Your task to perform on an android device: turn off picture-in-picture Image 0: 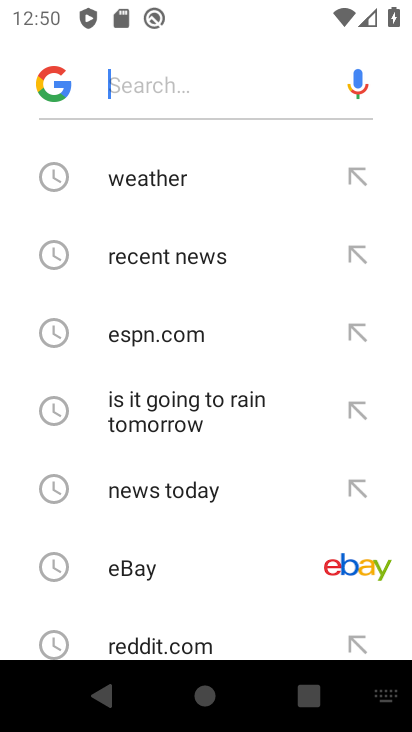
Step 0: press back button
Your task to perform on an android device: turn off picture-in-picture Image 1: 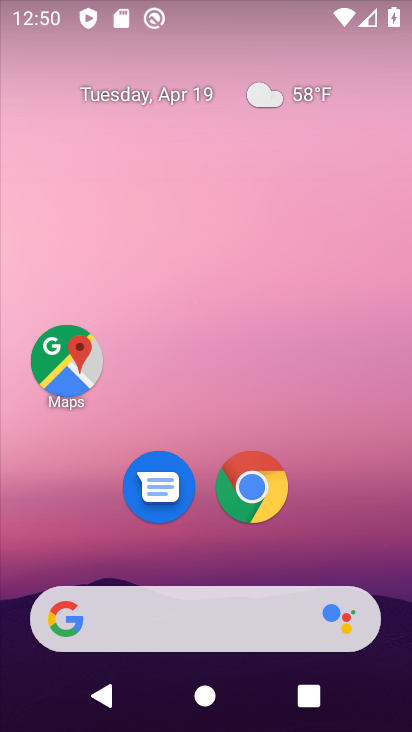
Step 1: drag from (204, 709) to (167, 109)
Your task to perform on an android device: turn off picture-in-picture Image 2: 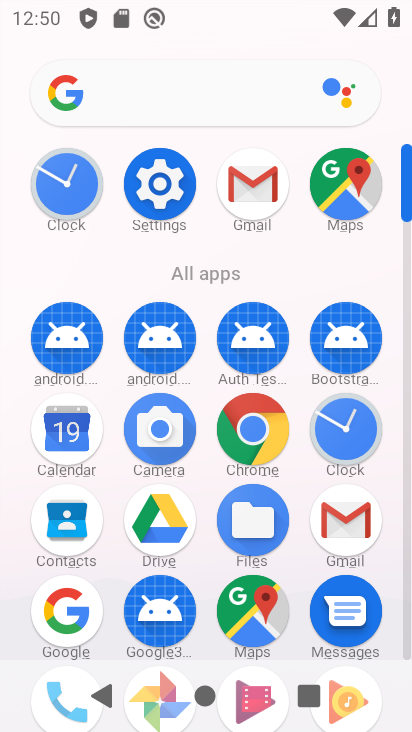
Step 2: click (164, 175)
Your task to perform on an android device: turn off picture-in-picture Image 3: 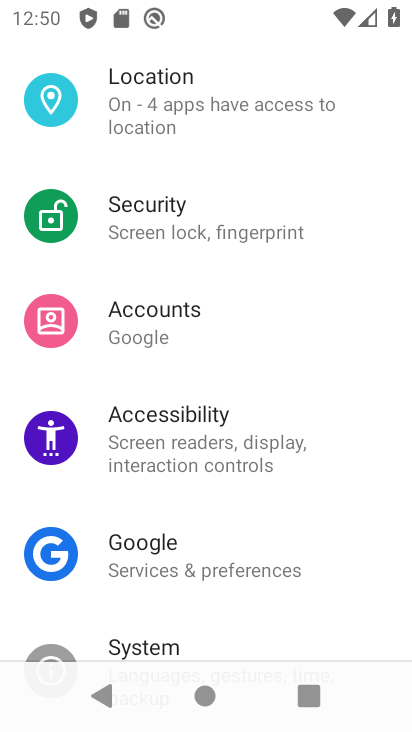
Step 3: drag from (185, 172) to (177, 606)
Your task to perform on an android device: turn off picture-in-picture Image 4: 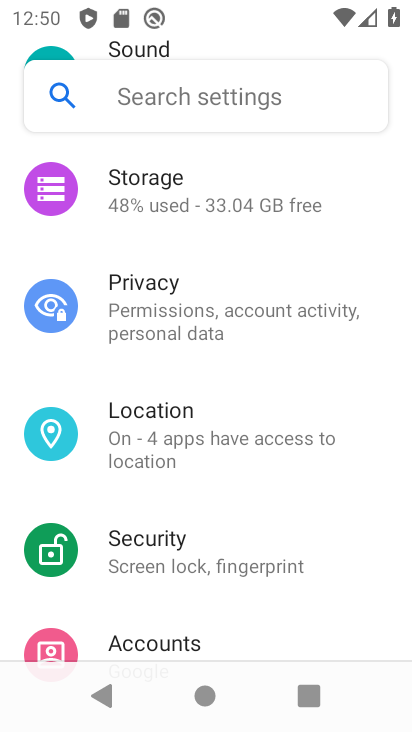
Step 4: drag from (219, 258) to (221, 647)
Your task to perform on an android device: turn off picture-in-picture Image 5: 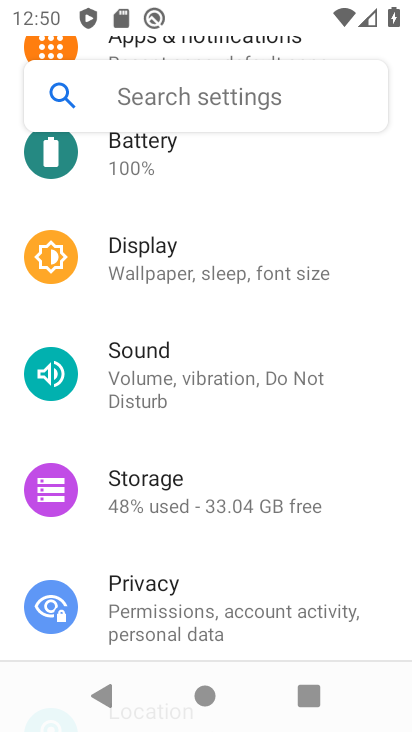
Step 5: drag from (224, 215) to (234, 543)
Your task to perform on an android device: turn off picture-in-picture Image 6: 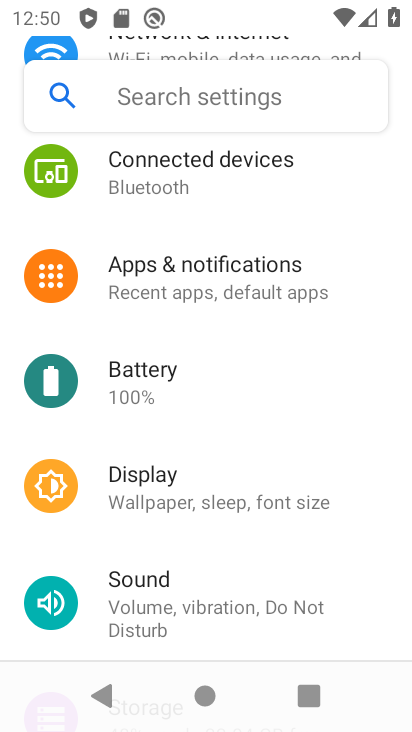
Step 6: click (205, 268)
Your task to perform on an android device: turn off picture-in-picture Image 7: 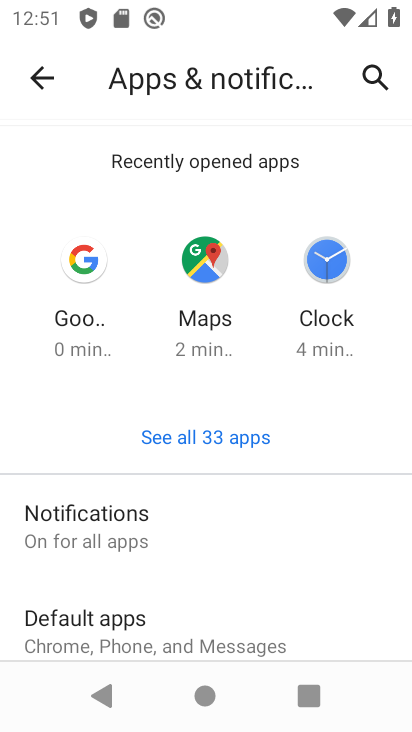
Step 7: drag from (202, 611) to (172, 272)
Your task to perform on an android device: turn off picture-in-picture Image 8: 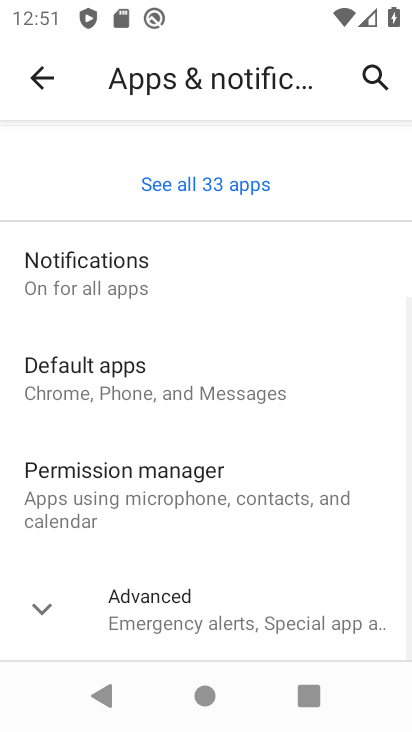
Step 8: click (145, 600)
Your task to perform on an android device: turn off picture-in-picture Image 9: 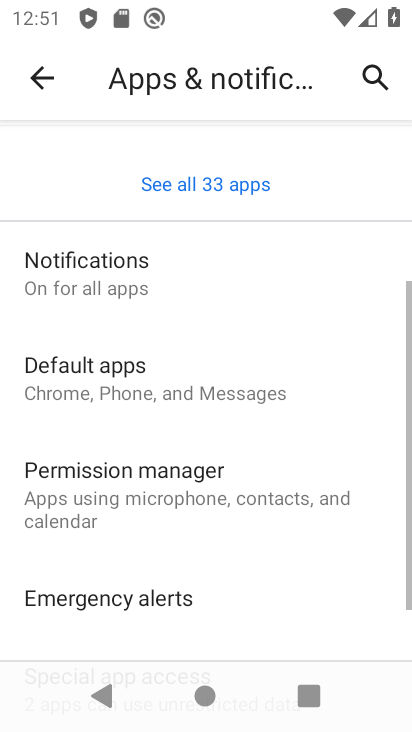
Step 9: drag from (185, 636) to (178, 172)
Your task to perform on an android device: turn off picture-in-picture Image 10: 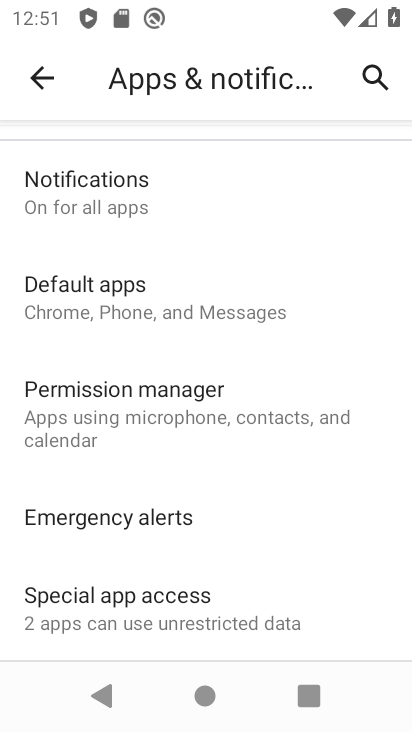
Step 10: click (146, 603)
Your task to perform on an android device: turn off picture-in-picture Image 11: 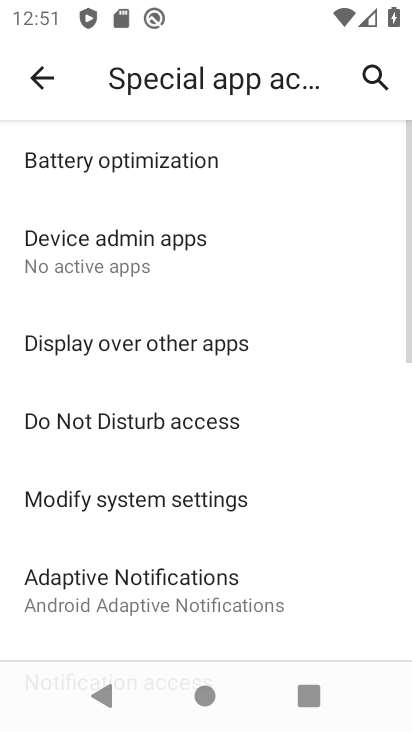
Step 11: drag from (210, 633) to (205, 348)
Your task to perform on an android device: turn off picture-in-picture Image 12: 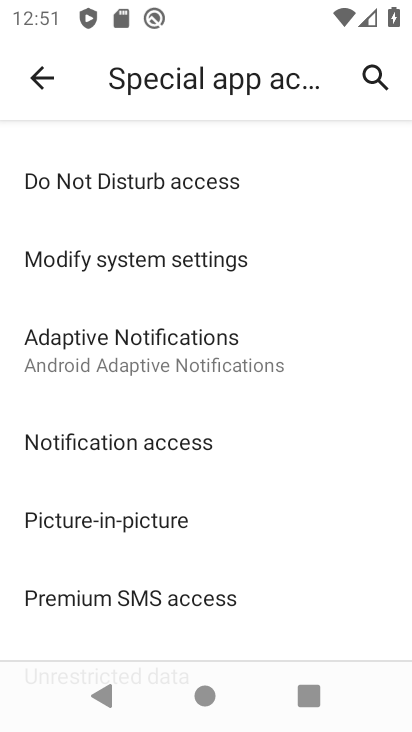
Step 12: click (142, 522)
Your task to perform on an android device: turn off picture-in-picture Image 13: 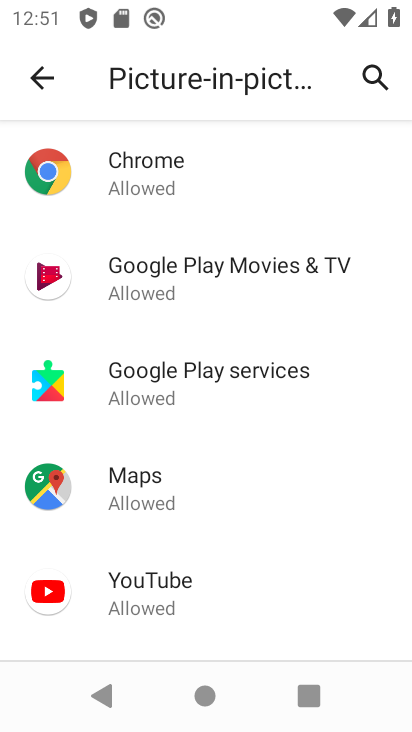
Step 13: click (156, 594)
Your task to perform on an android device: turn off picture-in-picture Image 14: 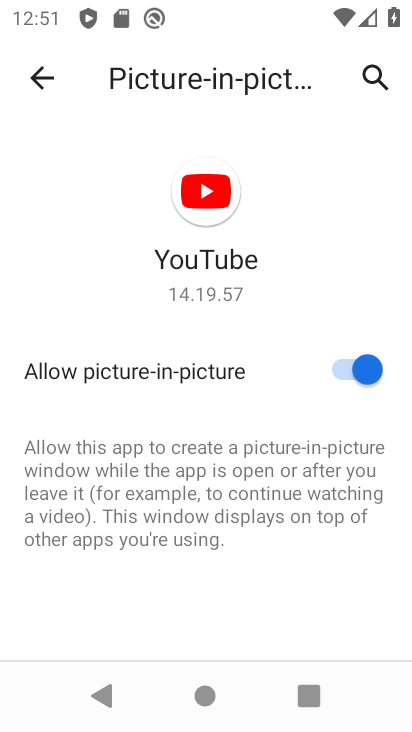
Step 14: click (343, 370)
Your task to perform on an android device: turn off picture-in-picture Image 15: 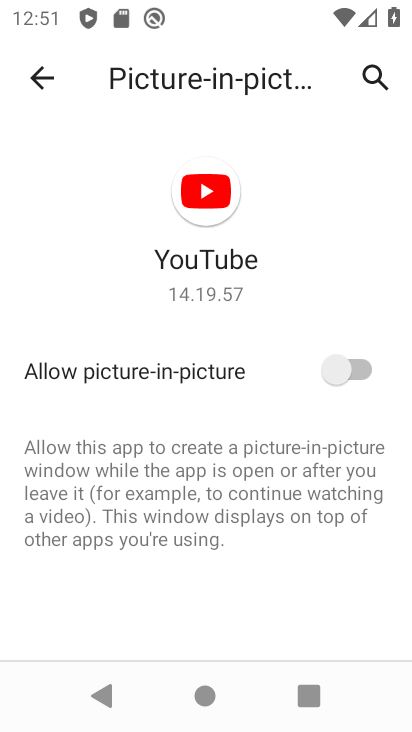
Step 15: task complete